Your task to perform on an android device: Open display settings Image 0: 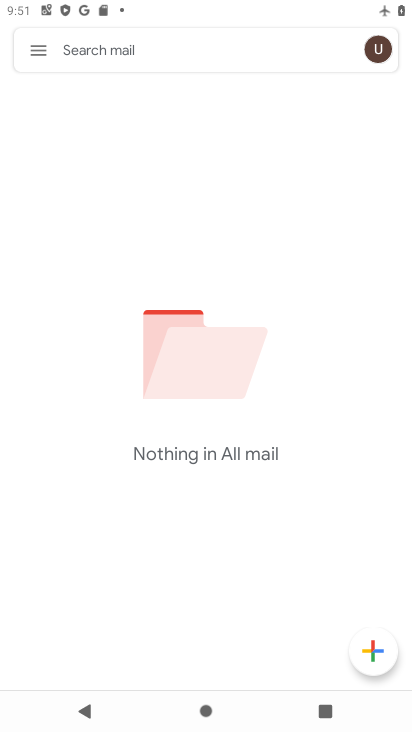
Step 0: press home button
Your task to perform on an android device: Open display settings Image 1: 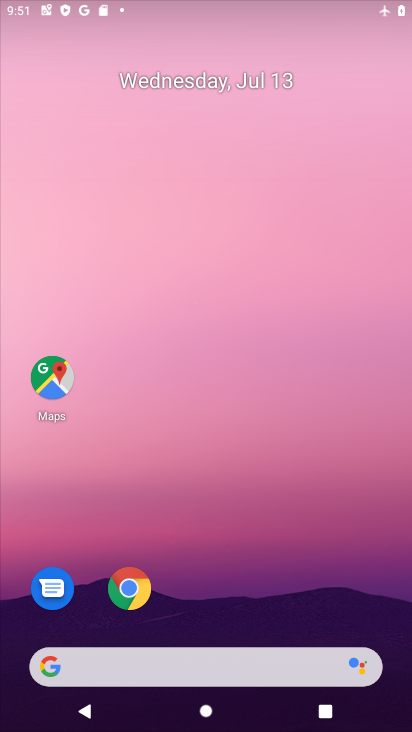
Step 1: drag from (206, 608) to (223, 180)
Your task to perform on an android device: Open display settings Image 2: 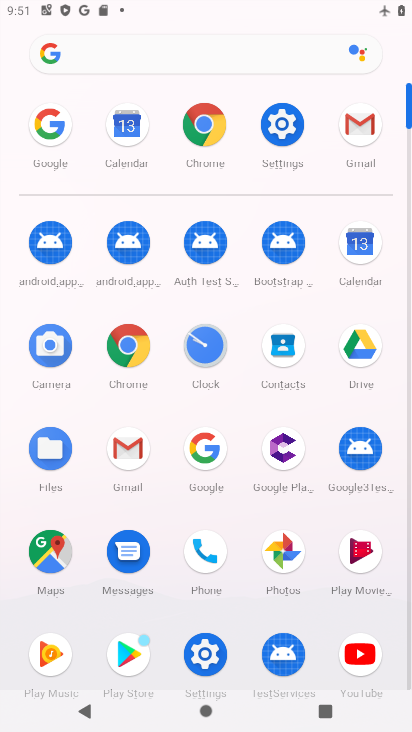
Step 2: click (204, 657)
Your task to perform on an android device: Open display settings Image 3: 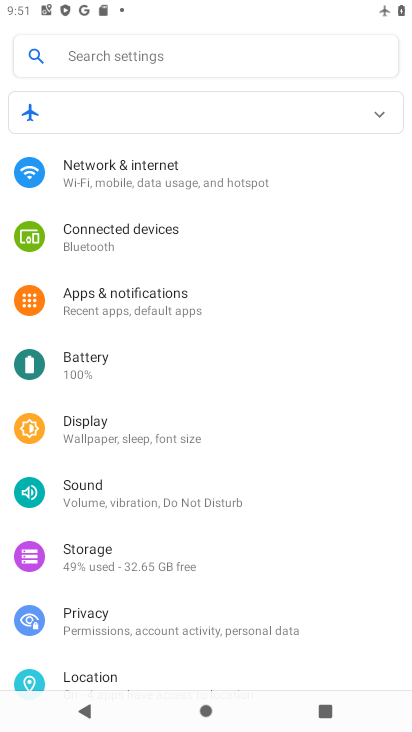
Step 3: click (117, 430)
Your task to perform on an android device: Open display settings Image 4: 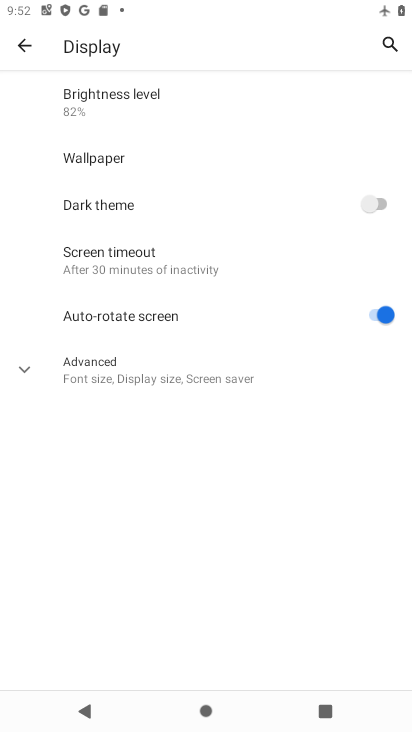
Step 4: task complete